Your task to perform on an android device: delete the emails in spam in the gmail app Image 0: 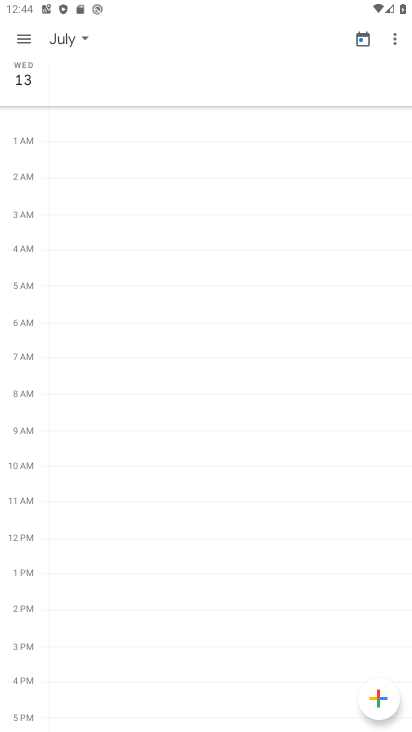
Step 0: press home button
Your task to perform on an android device: delete the emails in spam in the gmail app Image 1: 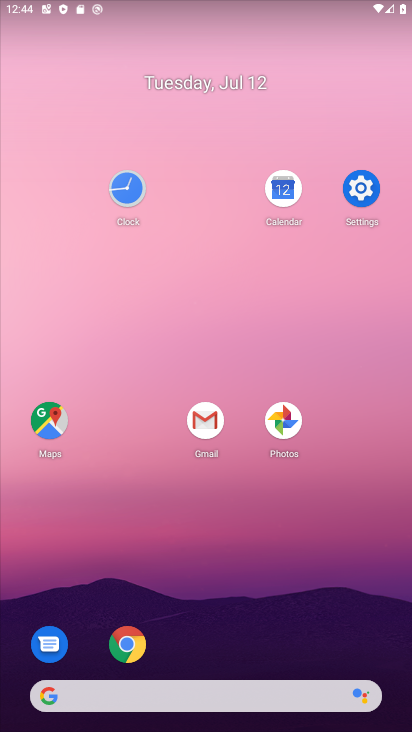
Step 1: click (208, 418)
Your task to perform on an android device: delete the emails in spam in the gmail app Image 2: 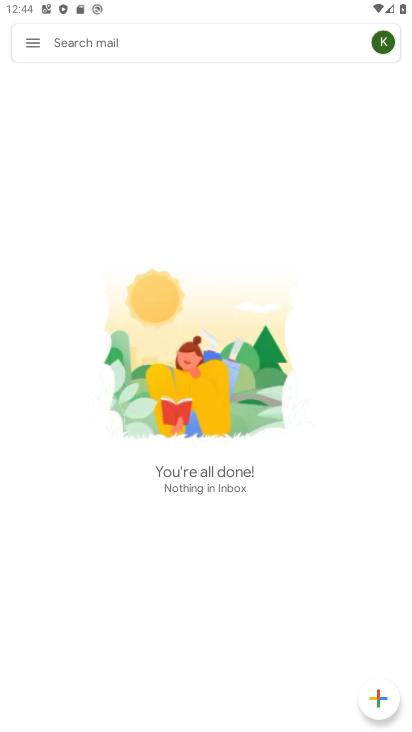
Step 2: click (46, 43)
Your task to perform on an android device: delete the emails in spam in the gmail app Image 3: 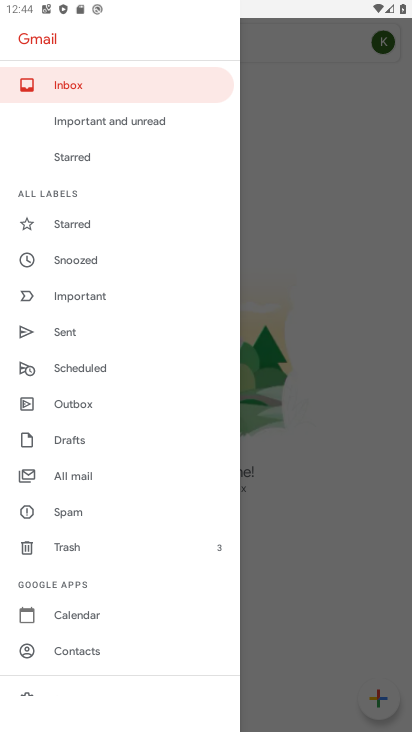
Step 3: click (141, 467)
Your task to perform on an android device: delete the emails in spam in the gmail app Image 4: 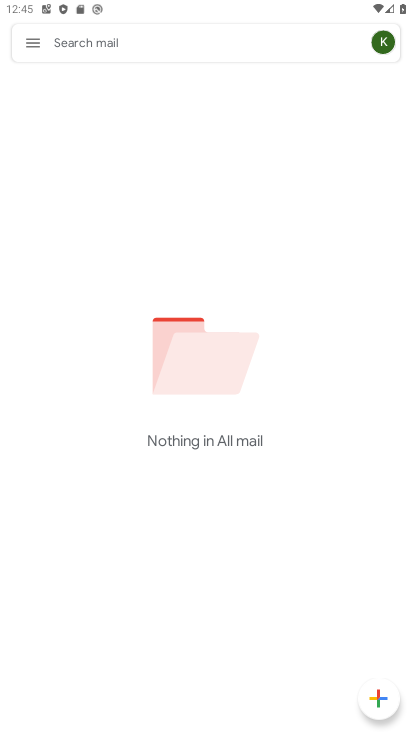
Step 4: task complete